Your task to perform on an android device: Open the map Image 0: 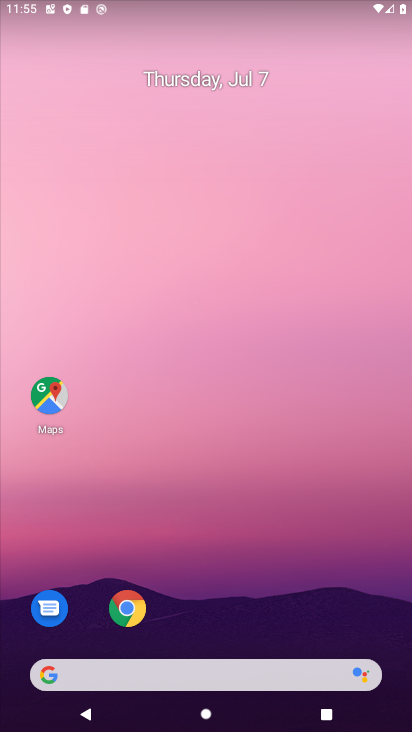
Step 0: click (43, 403)
Your task to perform on an android device: Open the map Image 1: 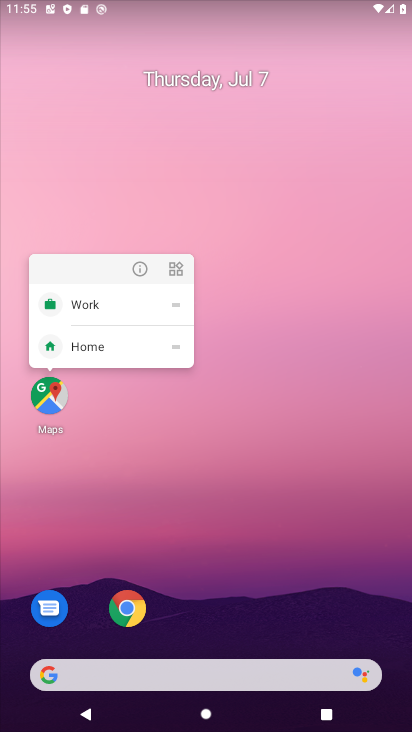
Step 1: click (53, 399)
Your task to perform on an android device: Open the map Image 2: 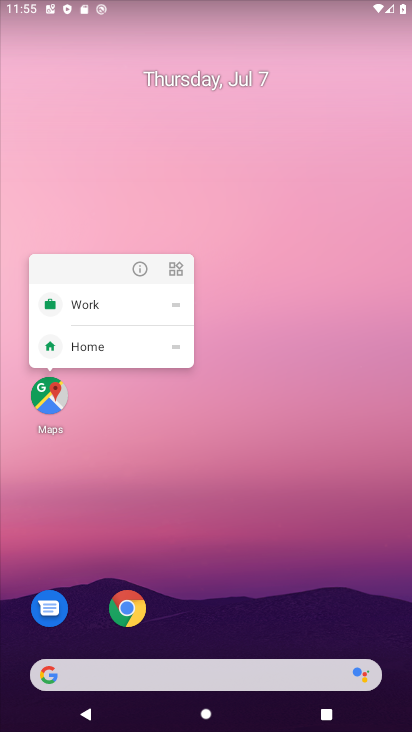
Step 2: click (60, 424)
Your task to perform on an android device: Open the map Image 3: 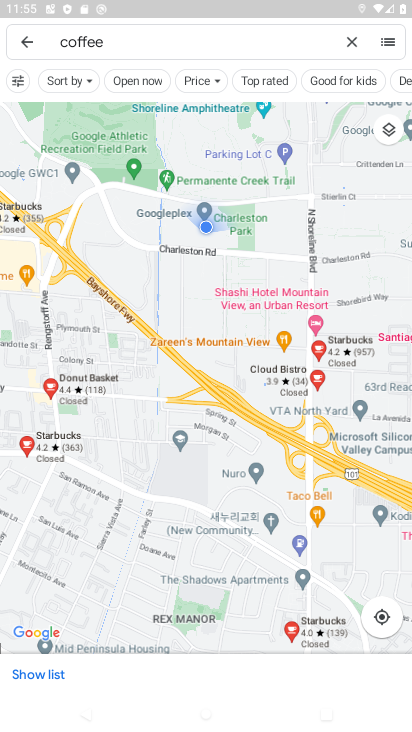
Step 3: task complete